Your task to perform on an android device: toggle wifi Image 0: 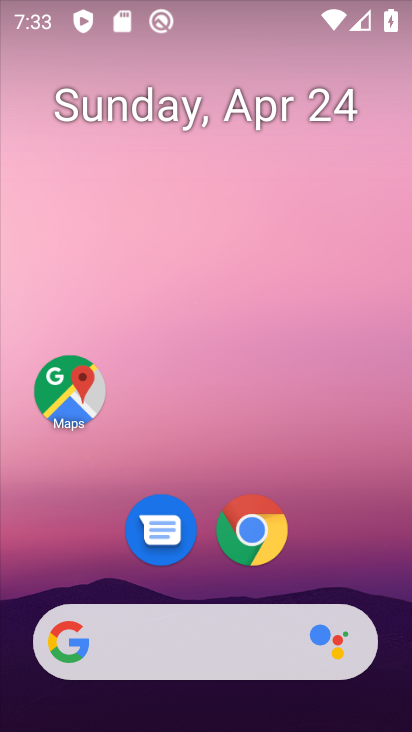
Step 0: drag from (196, 11) to (132, 446)
Your task to perform on an android device: toggle wifi Image 1: 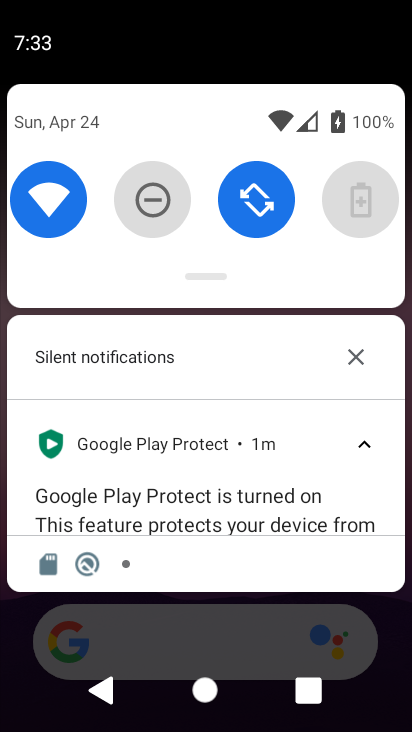
Step 1: click (54, 219)
Your task to perform on an android device: toggle wifi Image 2: 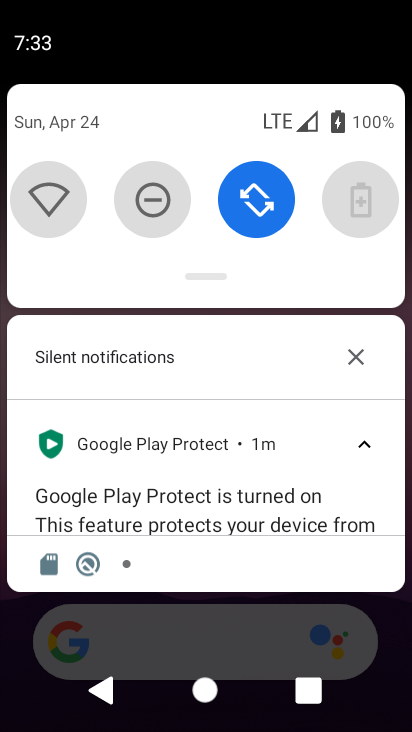
Step 2: click (54, 219)
Your task to perform on an android device: toggle wifi Image 3: 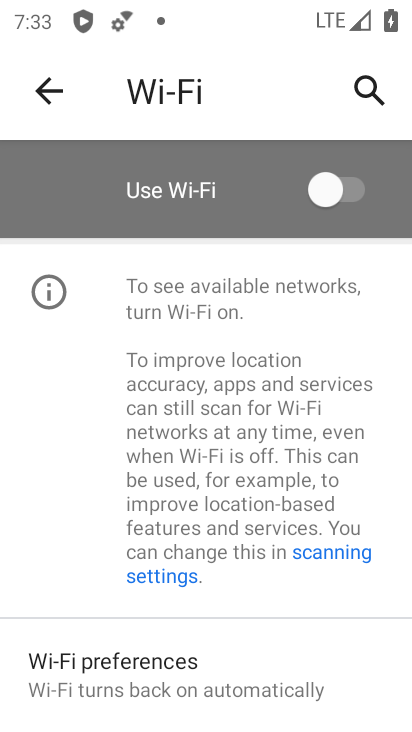
Step 3: click (346, 191)
Your task to perform on an android device: toggle wifi Image 4: 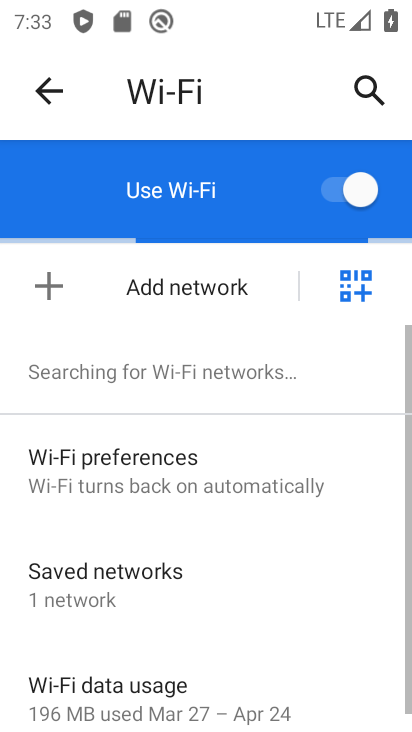
Step 4: click (346, 191)
Your task to perform on an android device: toggle wifi Image 5: 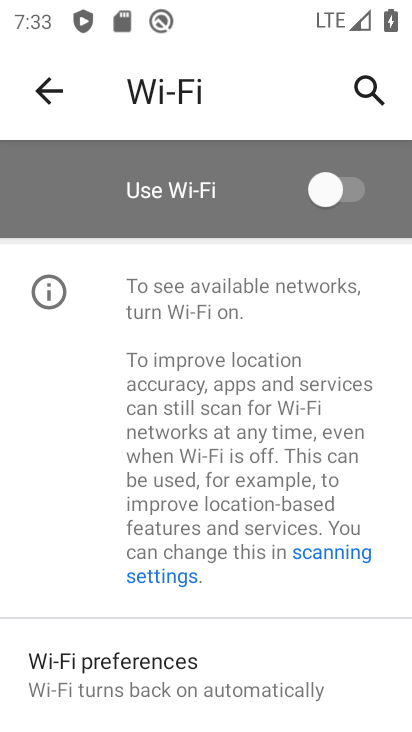
Step 5: click (343, 193)
Your task to perform on an android device: toggle wifi Image 6: 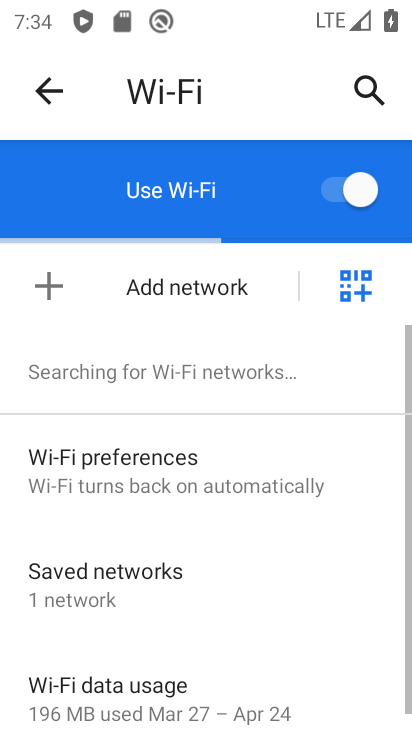
Step 6: task complete